Your task to perform on an android device: clear history in the chrome app Image 0: 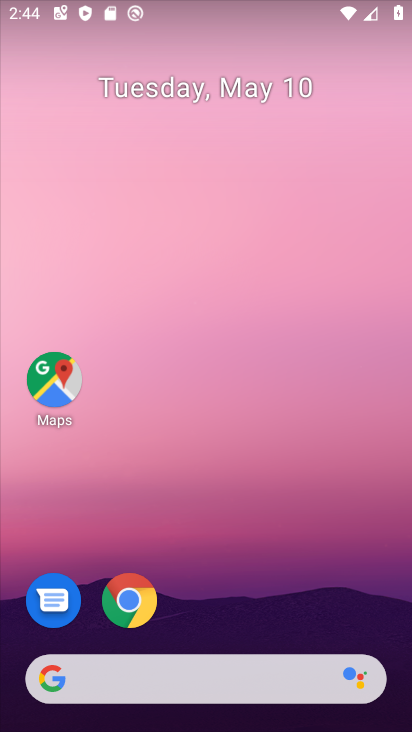
Step 0: drag from (241, 546) to (24, 7)
Your task to perform on an android device: clear history in the chrome app Image 1: 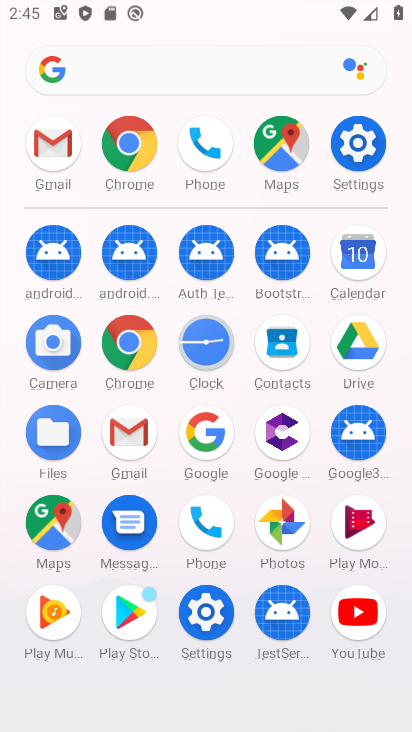
Step 1: click (122, 169)
Your task to perform on an android device: clear history in the chrome app Image 2: 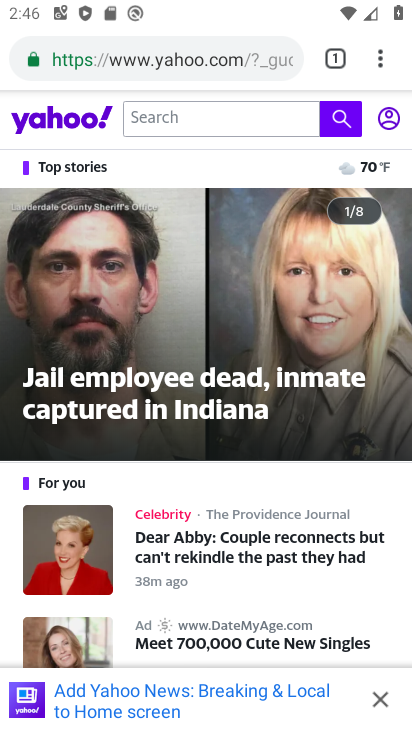
Step 2: click (383, 72)
Your task to perform on an android device: clear history in the chrome app Image 3: 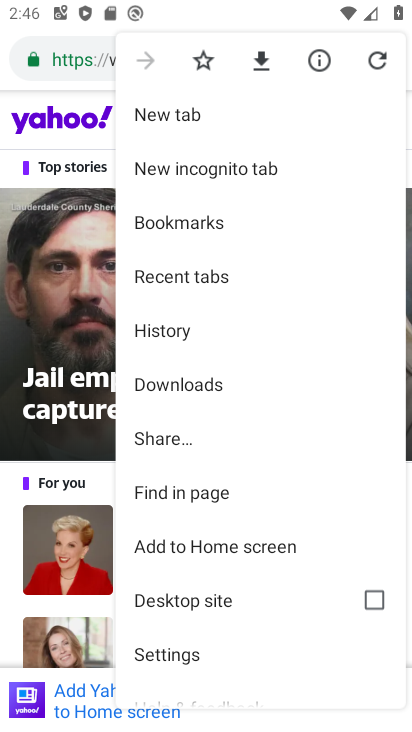
Step 3: click (181, 329)
Your task to perform on an android device: clear history in the chrome app Image 4: 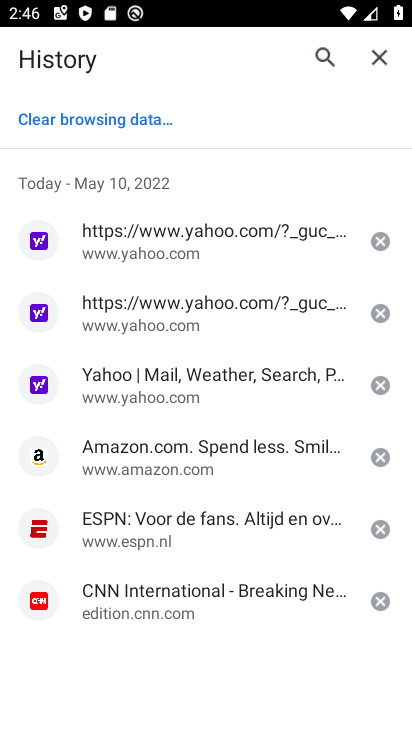
Step 4: click (47, 124)
Your task to perform on an android device: clear history in the chrome app Image 5: 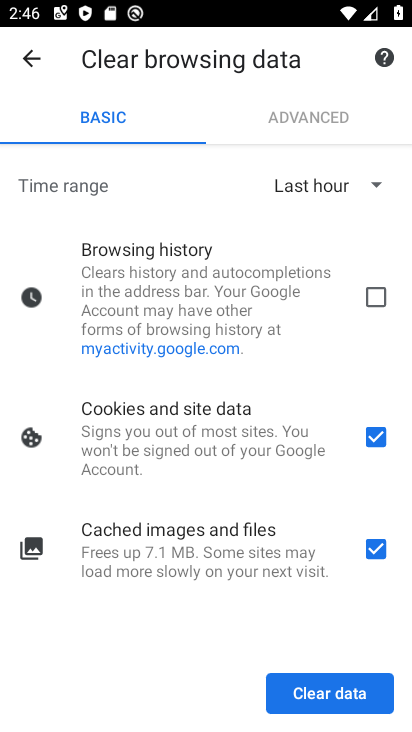
Step 5: click (321, 694)
Your task to perform on an android device: clear history in the chrome app Image 6: 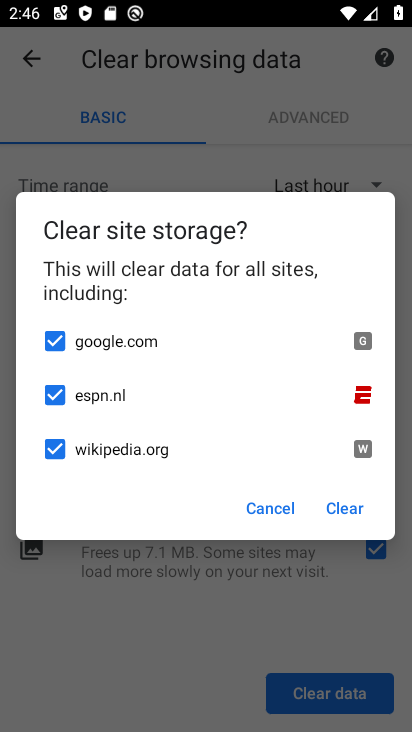
Step 6: click (342, 513)
Your task to perform on an android device: clear history in the chrome app Image 7: 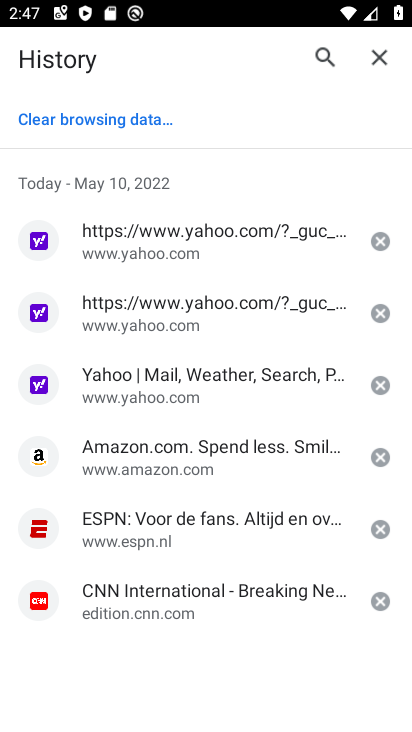
Step 7: task complete